Your task to perform on an android device: Open internet settings Image 0: 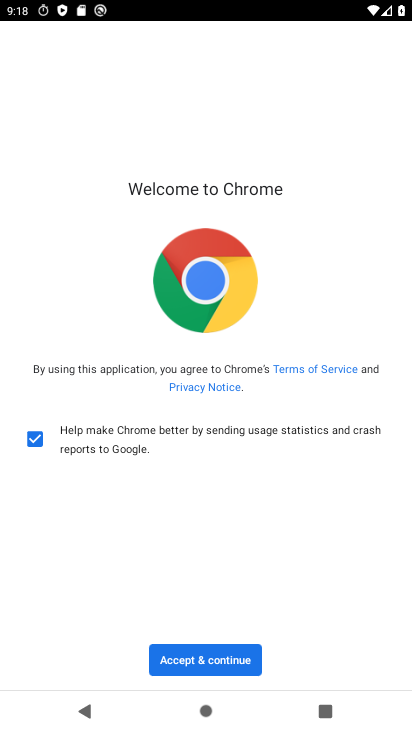
Step 0: press home button
Your task to perform on an android device: Open internet settings Image 1: 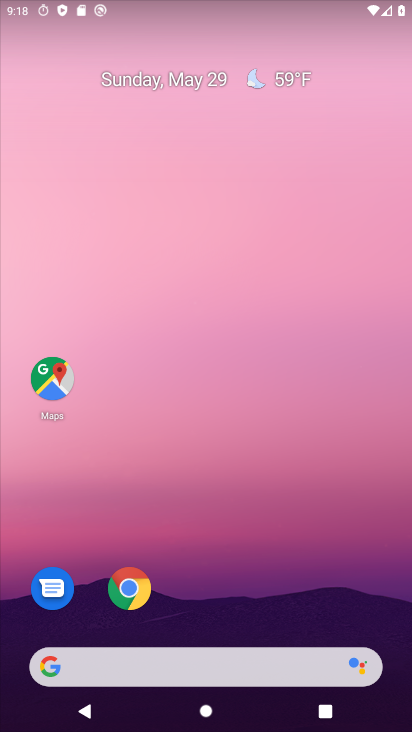
Step 1: drag from (208, 622) to (270, 21)
Your task to perform on an android device: Open internet settings Image 2: 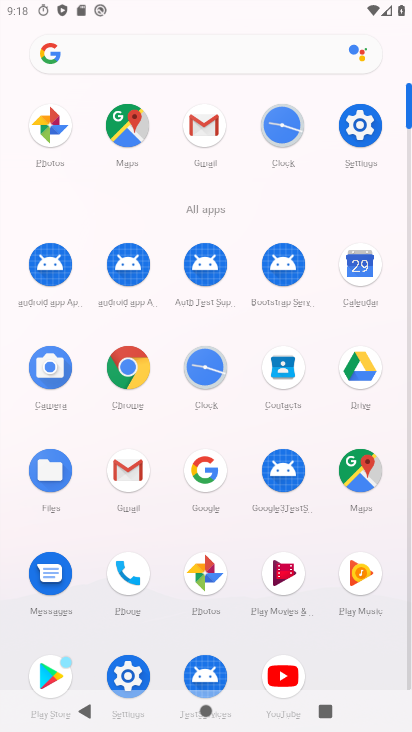
Step 2: click (358, 133)
Your task to perform on an android device: Open internet settings Image 3: 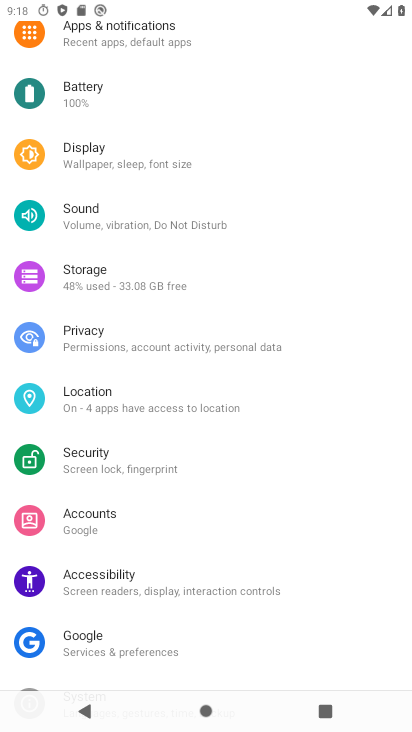
Step 3: drag from (206, 169) to (151, 677)
Your task to perform on an android device: Open internet settings Image 4: 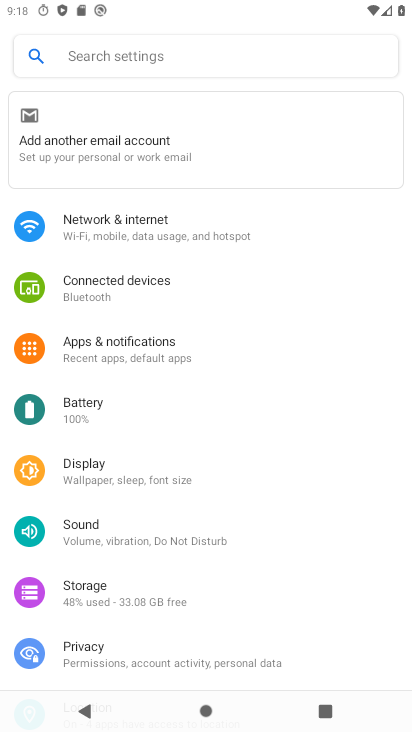
Step 4: click (167, 238)
Your task to perform on an android device: Open internet settings Image 5: 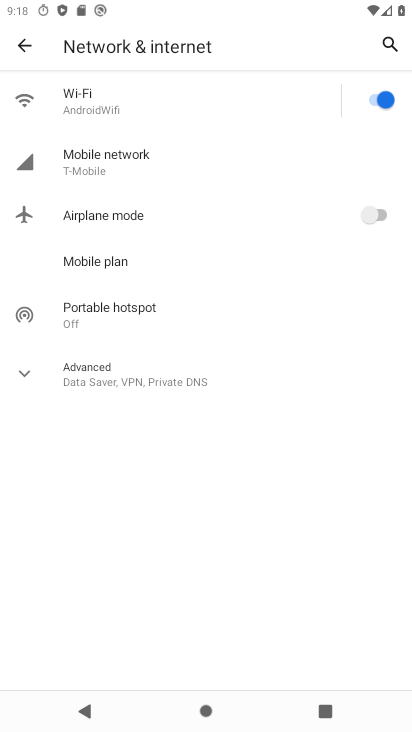
Step 5: task complete